Your task to perform on an android device: Find coffee shops on Maps Image 0: 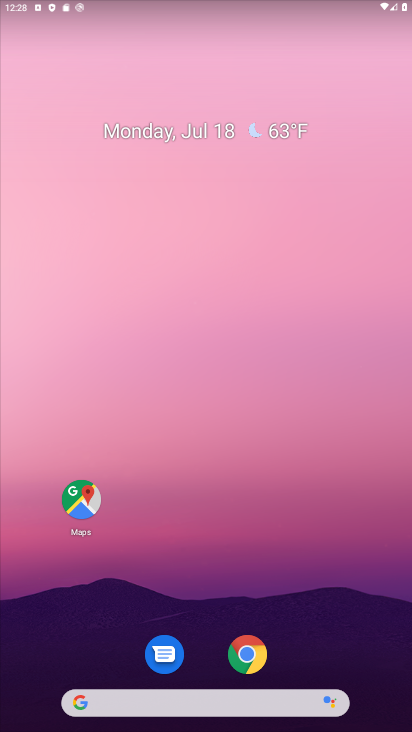
Step 0: click (95, 508)
Your task to perform on an android device: Find coffee shops on Maps Image 1: 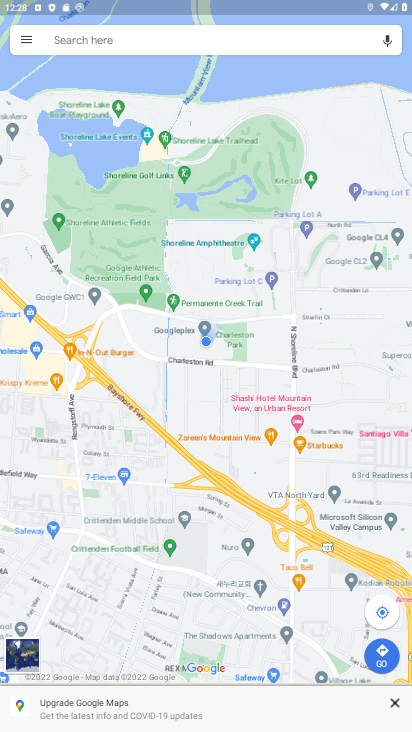
Step 1: click (279, 41)
Your task to perform on an android device: Find coffee shops on Maps Image 2: 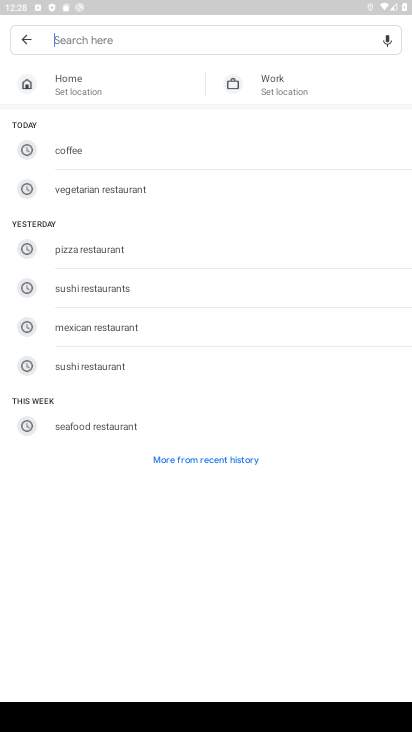
Step 2: type "coffee shops"
Your task to perform on an android device: Find coffee shops on Maps Image 3: 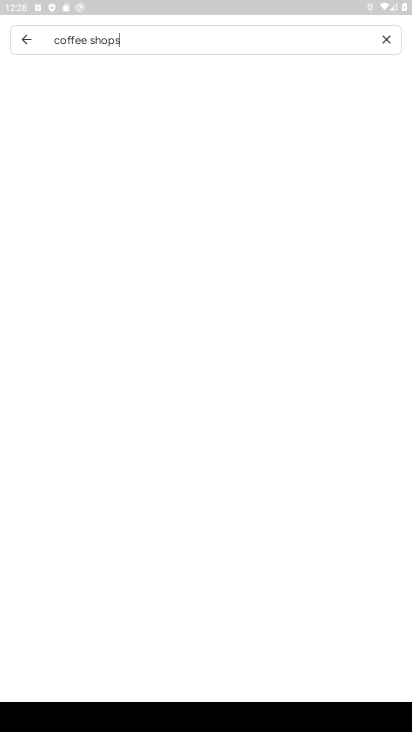
Step 3: type ""
Your task to perform on an android device: Find coffee shops on Maps Image 4: 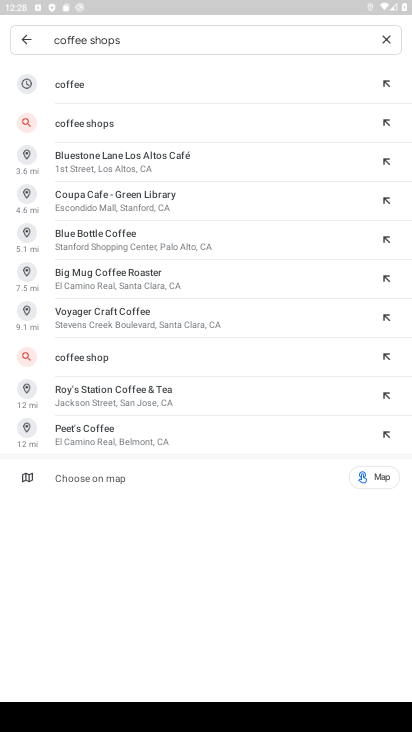
Step 4: click (161, 118)
Your task to perform on an android device: Find coffee shops on Maps Image 5: 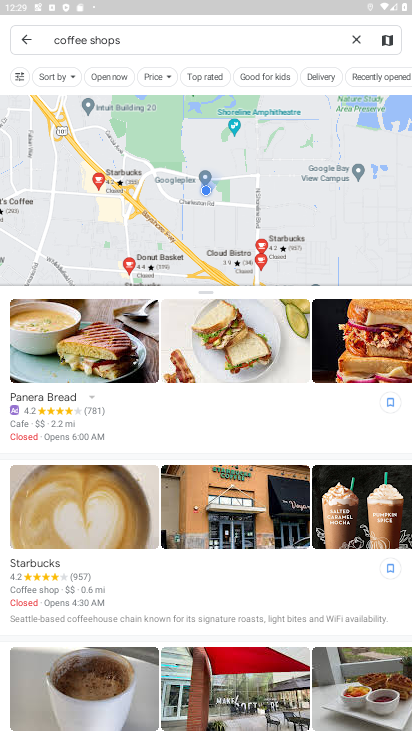
Step 5: task complete